Your task to perform on an android device: Go to Amazon Image 0: 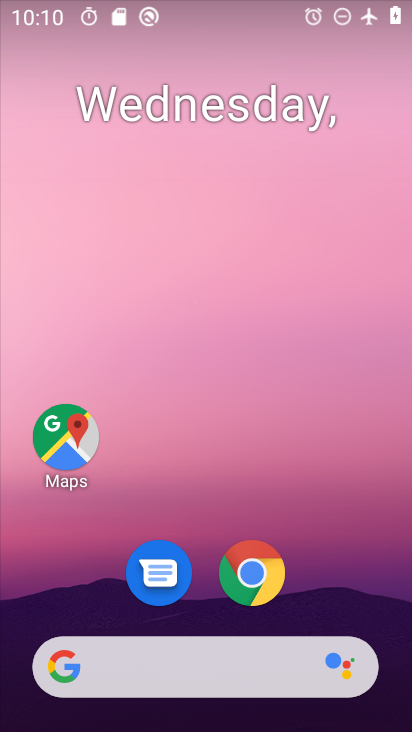
Step 0: drag from (342, 596) to (326, 228)
Your task to perform on an android device: Go to Amazon Image 1: 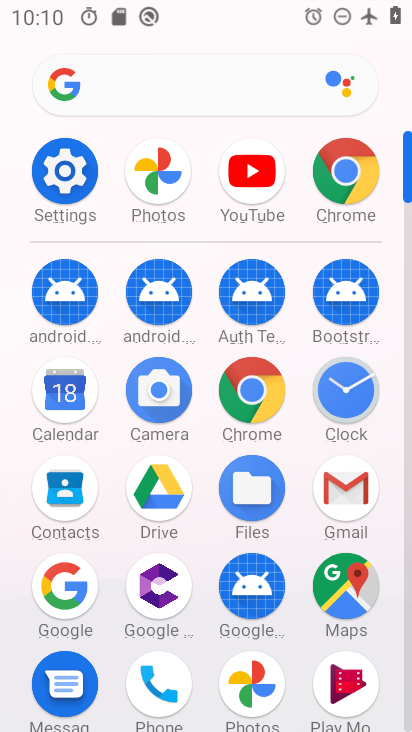
Step 1: drag from (246, 428) to (274, 196)
Your task to perform on an android device: Go to Amazon Image 2: 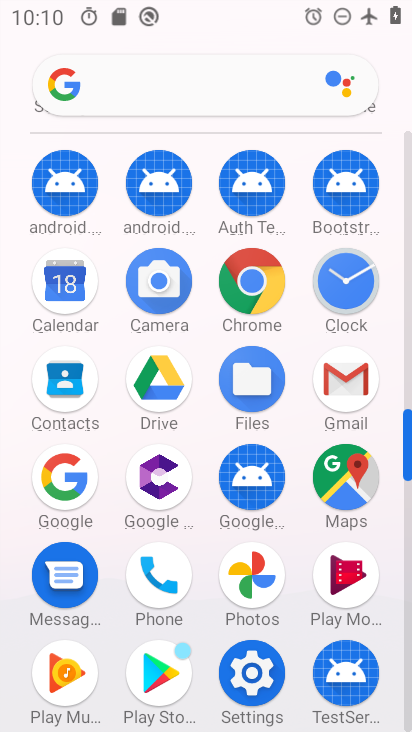
Step 2: click (260, 317)
Your task to perform on an android device: Go to Amazon Image 3: 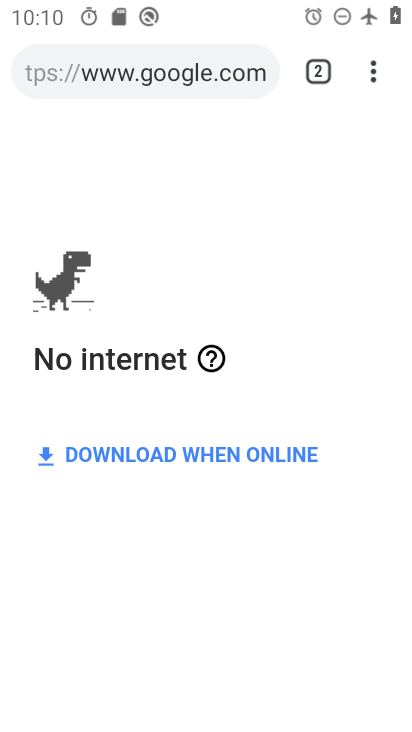
Step 3: click (254, 76)
Your task to perform on an android device: Go to Amazon Image 4: 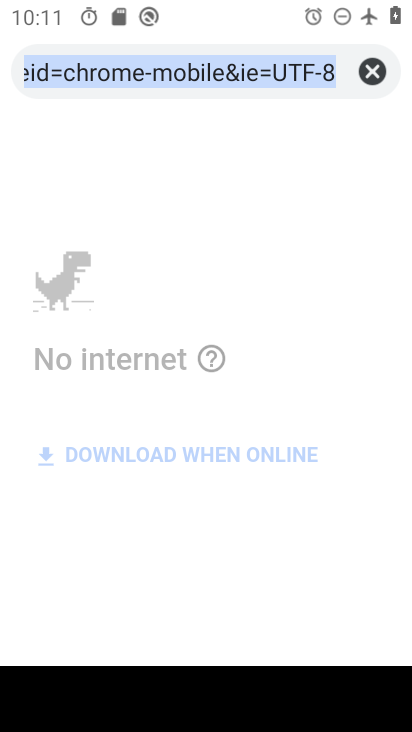
Step 4: type "amazon"
Your task to perform on an android device: Go to Amazon Image 5: 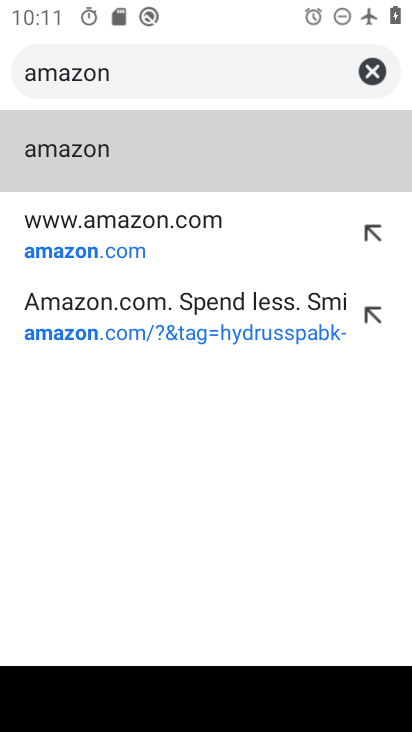
Step 5: click (282, 247)
Your task to perform on an android device: Go to Amazon Image 6: 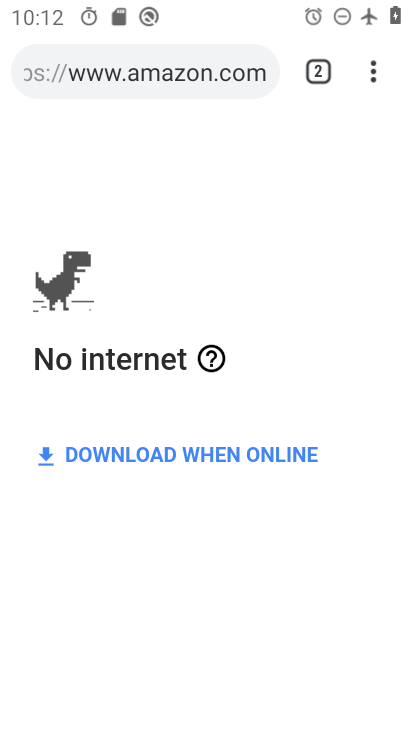
Step 6: task complete